Your task to perform on an android device: Check the weather Image 0: 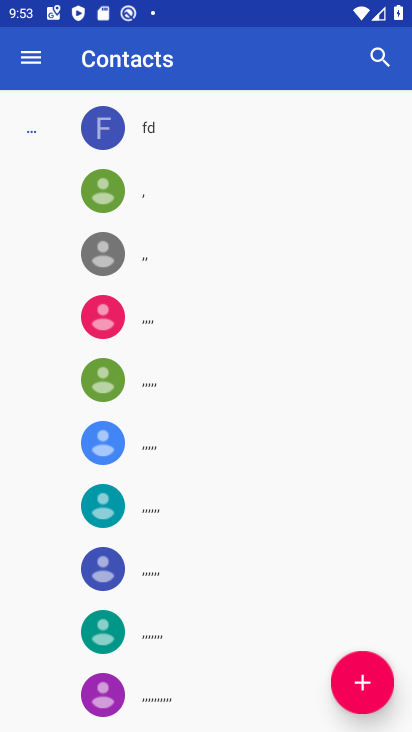
Step 0: press home button
Your task to perform on an android device: Check the weather Image 1: 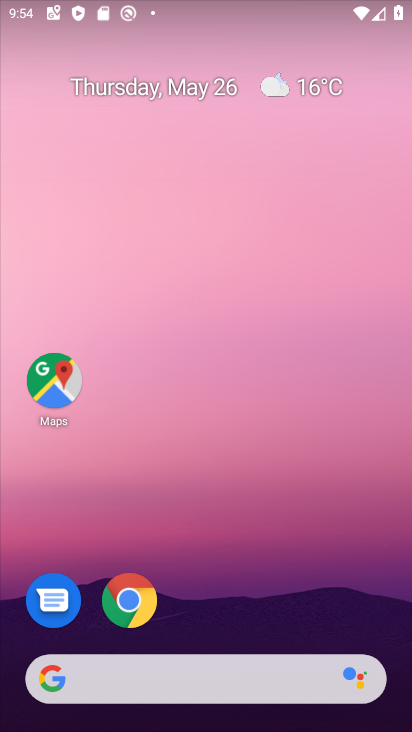
Step 1: click (324, 95)
Your task to perform on an android device: Check the weather Image 2: 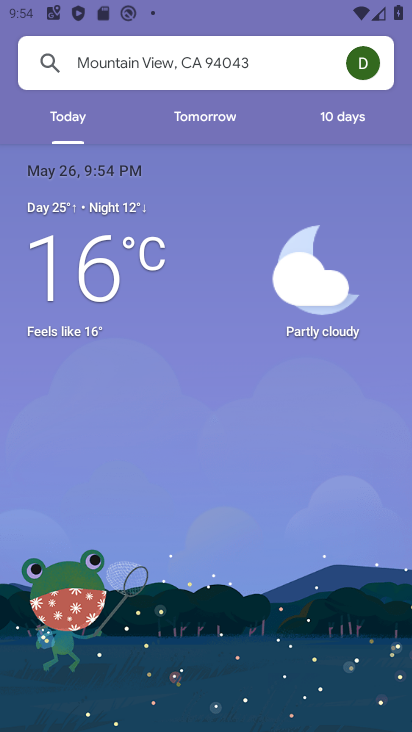
Step 2: task complete